Your task to perform on an android device: Open Google Maps and go to "Timeline" Image 0: 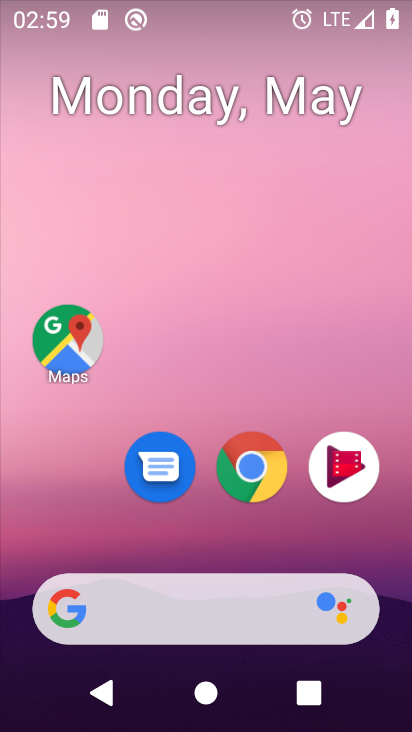
Step 0: press home button
Your task to perform on an android device: Open Google Maps and go to "Timeline" Image 1: 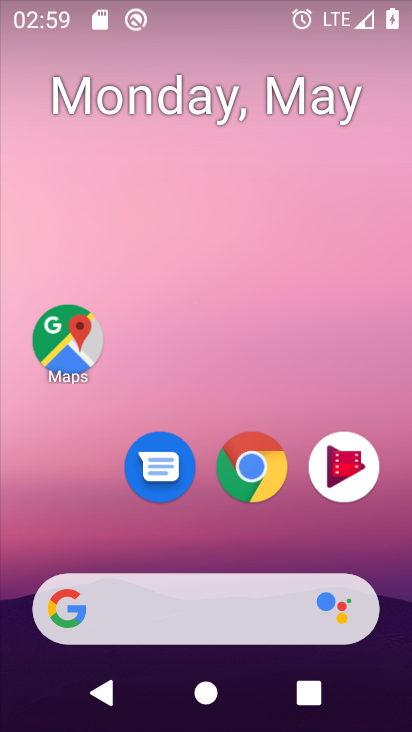
Step 1: click (247, 466)
Your task to perform on an android device: Open Google Maps and go to "Timeline" Image 2: 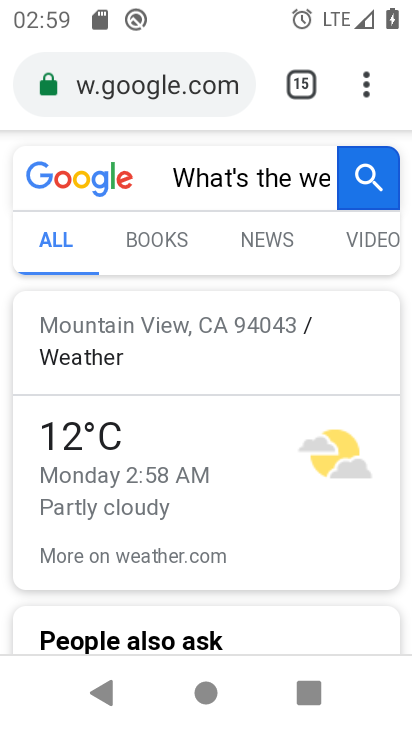
Step 2: press home button
Your task to perform on an android device: Open Google Maps and go to "Timeline" Image 3: 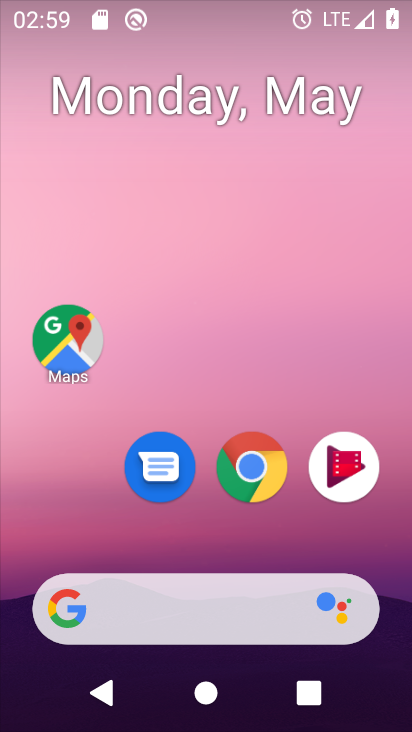
Step 3: click (59, 346)
Your task to perform on an android device: Open Google Maps and go to "Timeline" Image 4: 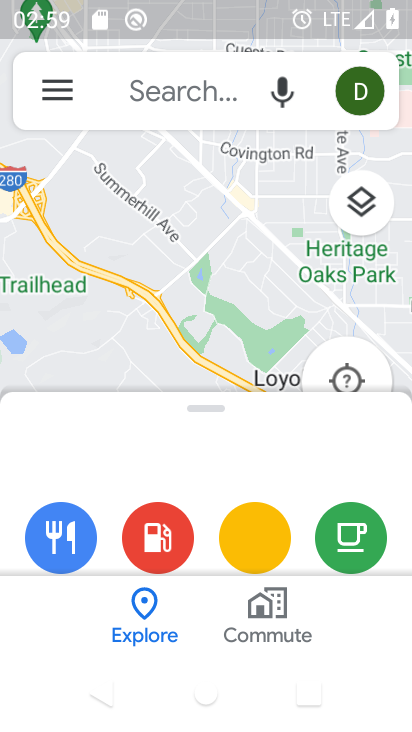
Step 4: click (68, 89)
Your task to perform on an android device: Open Google Maps and go to "Timeline" Image 5: 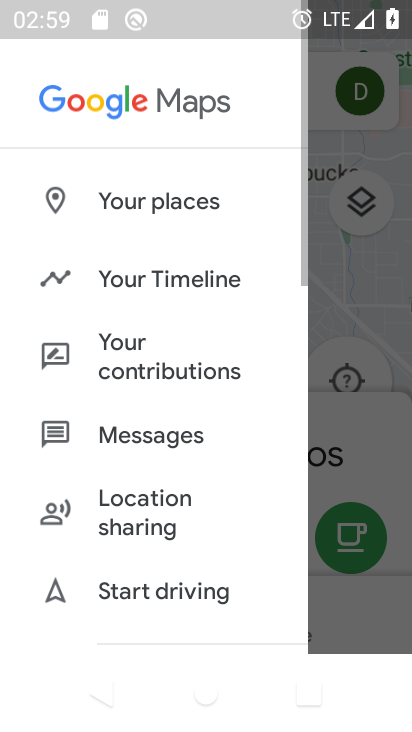
Step 5: click (115, 261)
Your task to perform on an android device: Open Google Maps and go to "Timeline" Image 6: 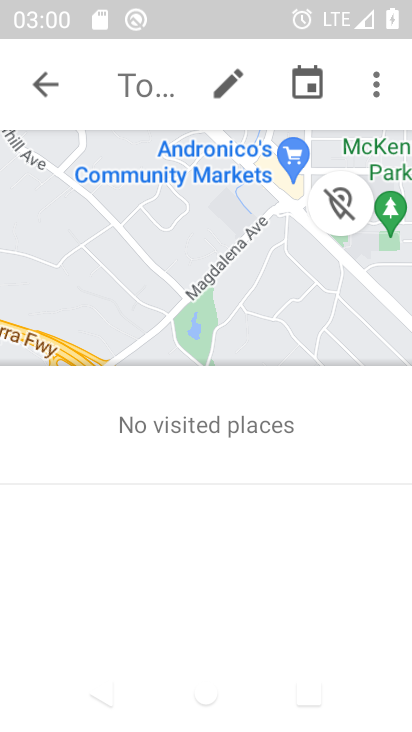
Step 6: task complete